Your task to perform on an android device: Is it going to rain today? Image 0: 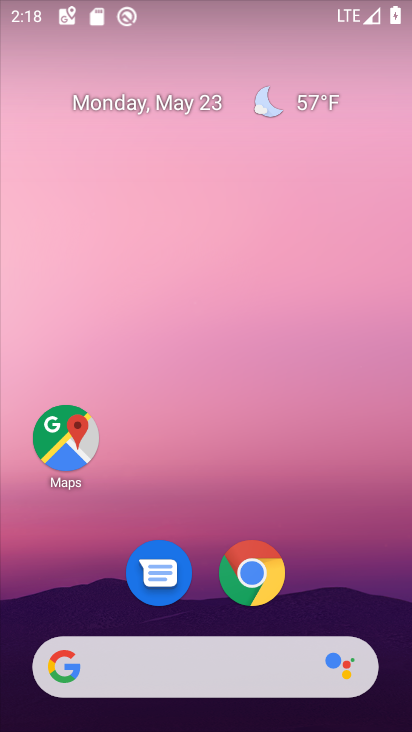
Step 0: click (264, 106)
Your task to perform on an android device: Is it going to rain today? Image 1: 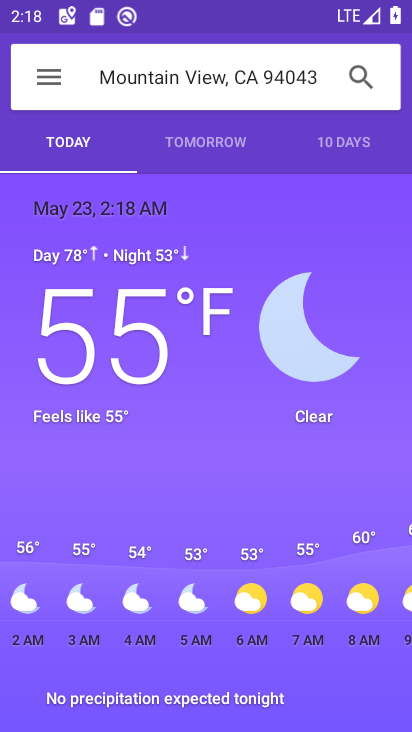
Step 1: task complete